Your task to perform on an android device: turn on the 12-hour format for clock Image 0: 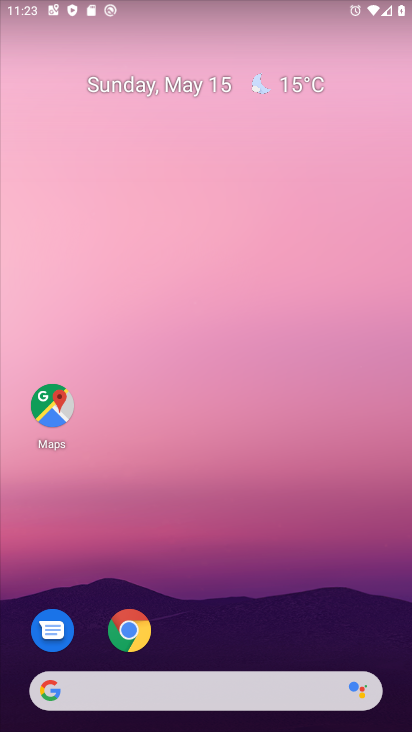
Step 0: drag from (195, 730) to (190, 207)
Your task to perform on an android device: turn on the 12-hour format for clock Image 1: 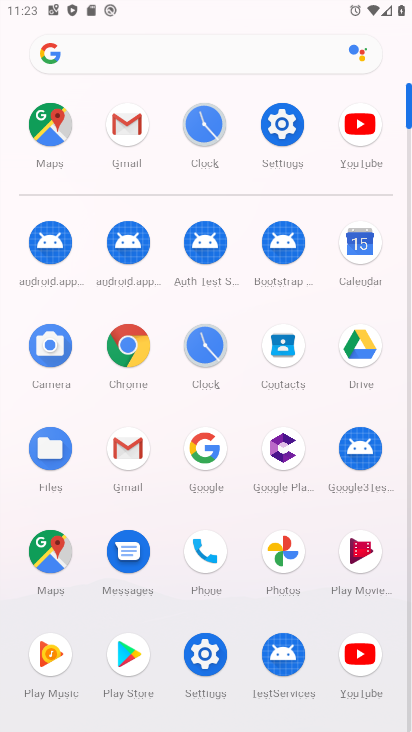
Step 1: click (205, 341)
Your task to perform on an android device: turn on the 12-hour format for clock Image 2: 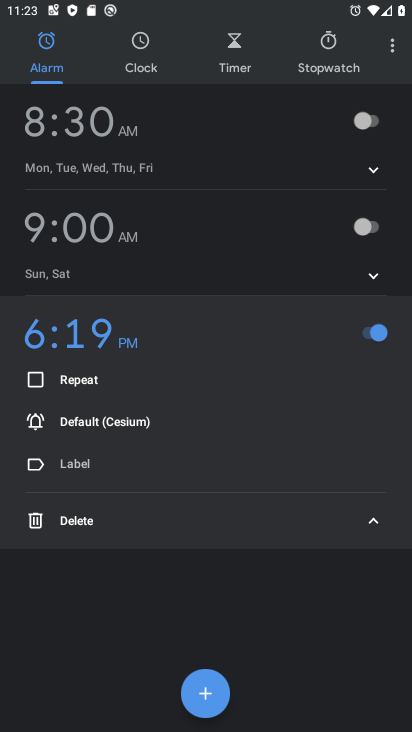
Step 2: click (391, 44)
Your task to perform on an android device: turn on the 12-hour format for clock Image 3: 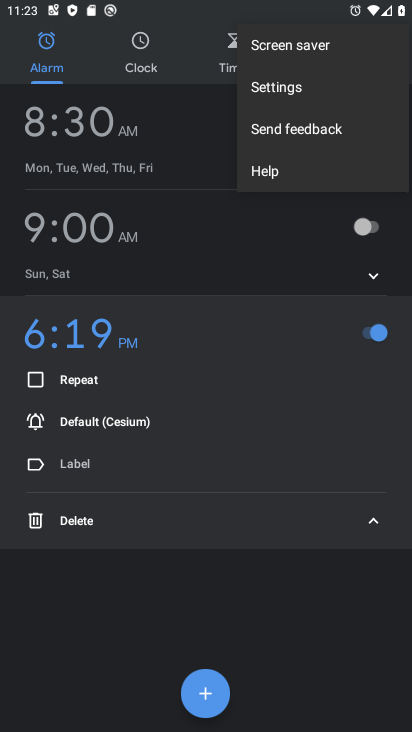
Step 3: click (269, 85)
Your task to perform on an android device: turn on the 12-hour format for clock Image 4: 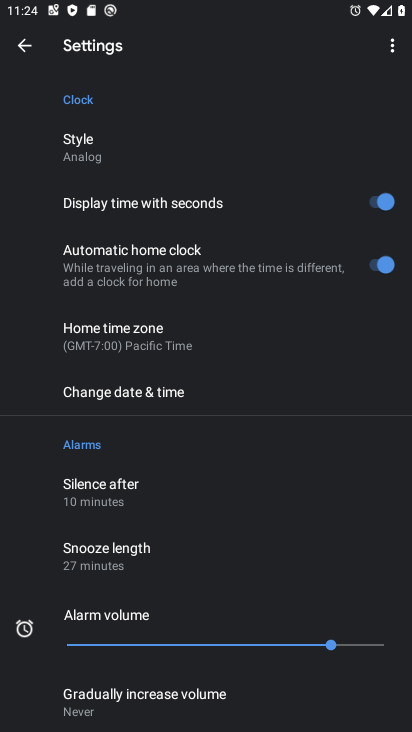
Step 4: click (122, 391)
Your task to perform on an android device: turn on the 12-hour format for clock Image 5: 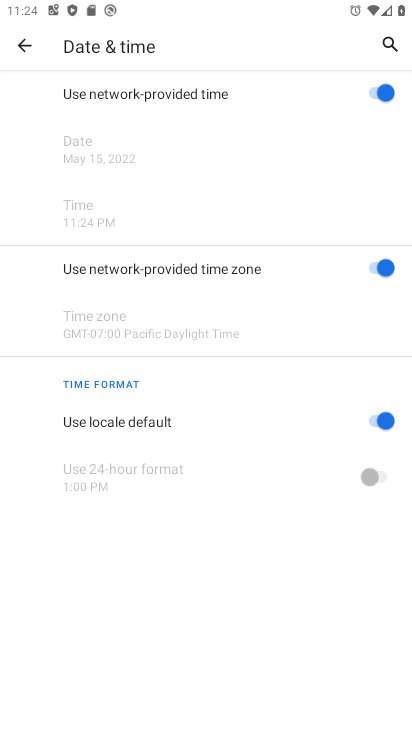
Step 5: task complete